Your task to perform on an android device: check storage Image 0: 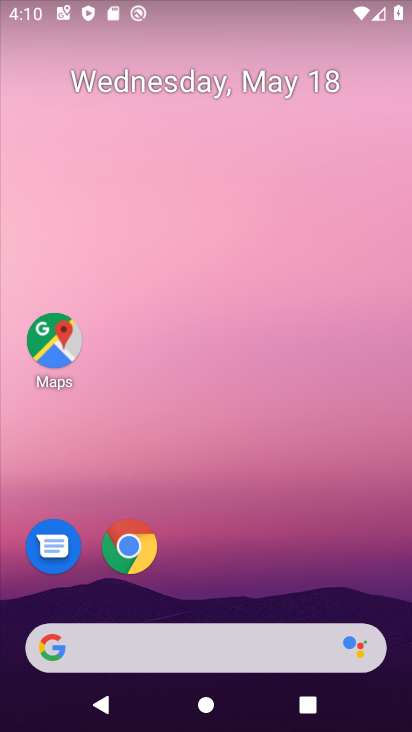
Step 0: drag from (217, 537) to (260, 98)
Your task to perform on an android device: check storage Image 1: 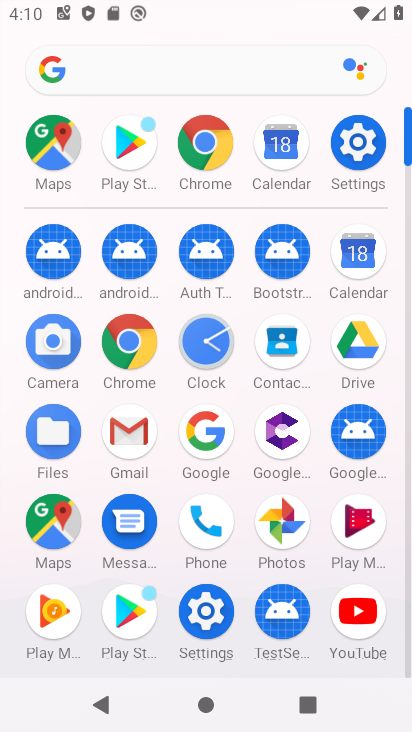
Step 1: click (217, 615)
Your task to perform on an android device: check storage Image 2: 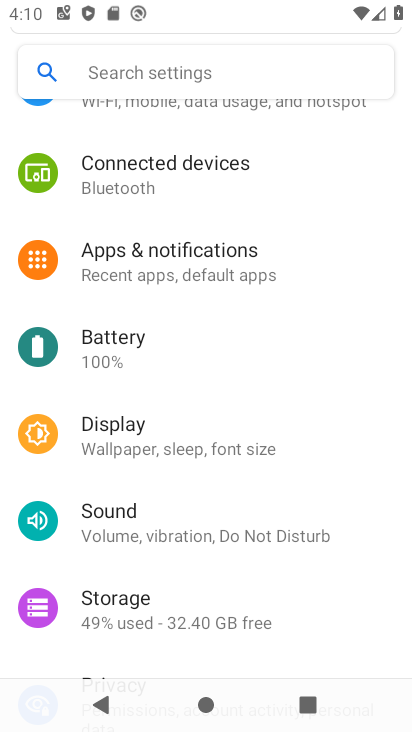
Step 2: drag from (204, 269) to (214, 385)
Your task to perform on an android device: check storage Image 3: 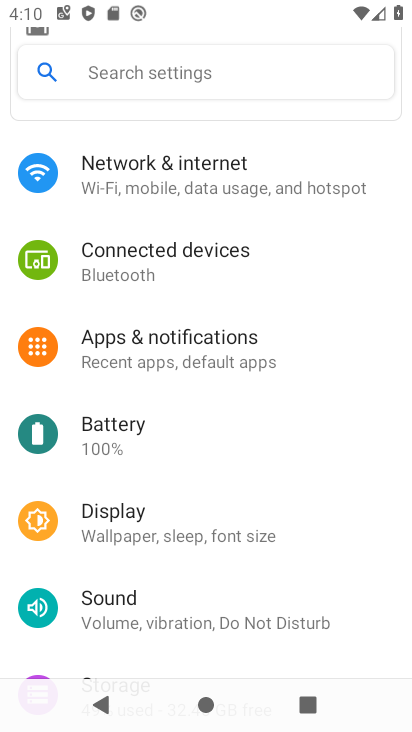
Step 3: drag from (149, 531) to (203, 173)
Your task to perform on an android device: check storage Image 4: 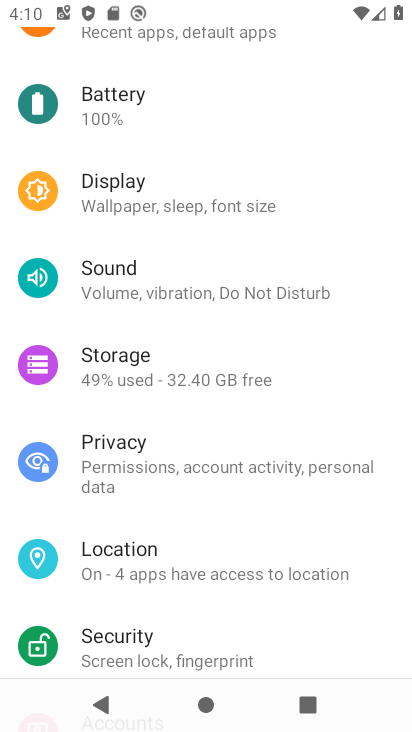
Step 4: click (135, 369)
Your task to perform on an android device: check storage Image 5: 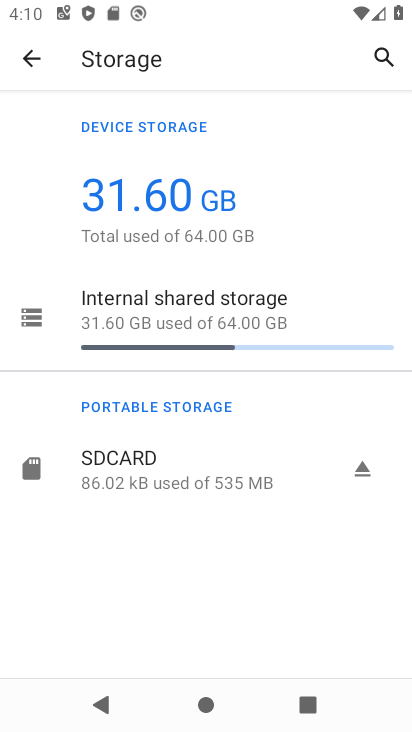
Step 5: click (250, 311)
Your task to perform on an android device: check storage Image 6: 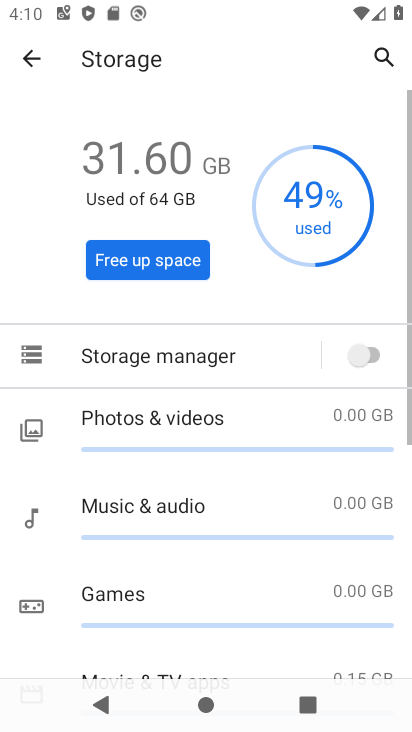
Step 6: task complete